Your task to perform on an android device: turn smart compose on in the gmail app Image 0: 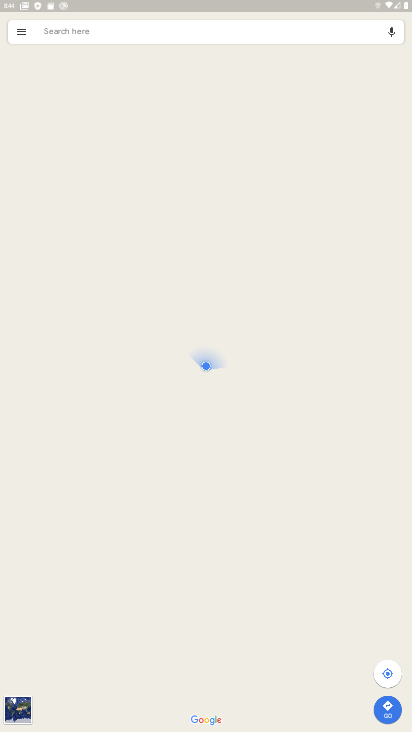
Step 0: press home button
Your task to perform on an android device: turn smart compose on in the gmail app Image 1: 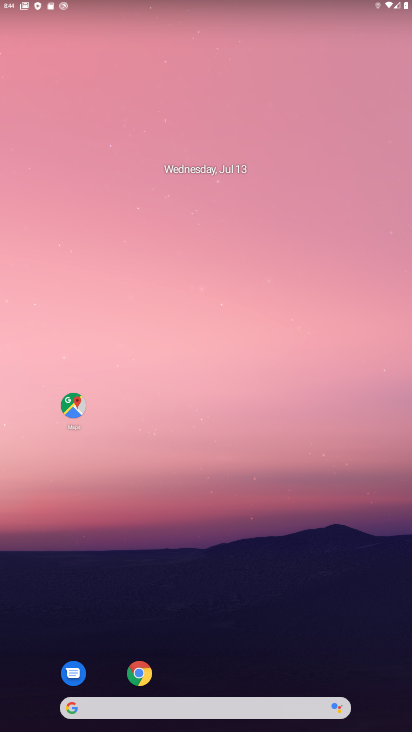
Step 1: drag from (221, 681) to (224, 326)
Your task to perform on an android device: turn smart compose on in the gmail app Image 2: 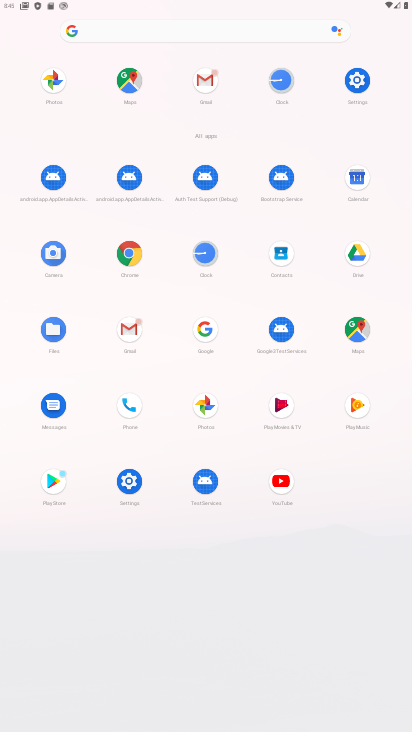
Step 2: click (116, 327)
Your task to perform on an android device: turn smart compose on in the gmail app Image 3: 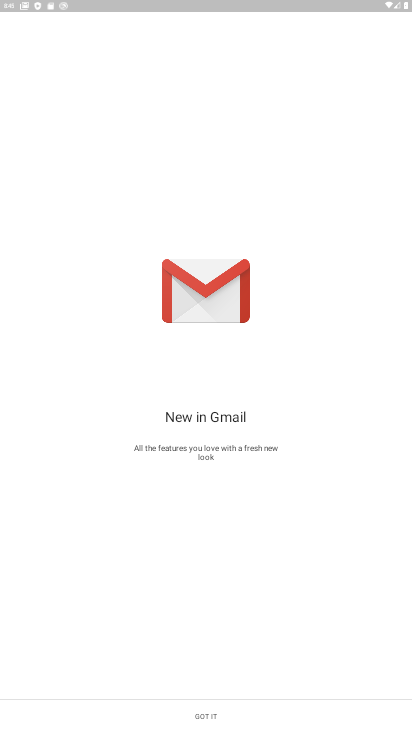
Step 3: click (191, 715)
Your task to perform on an android device: turn smart compose on in the gmail app Image 4: 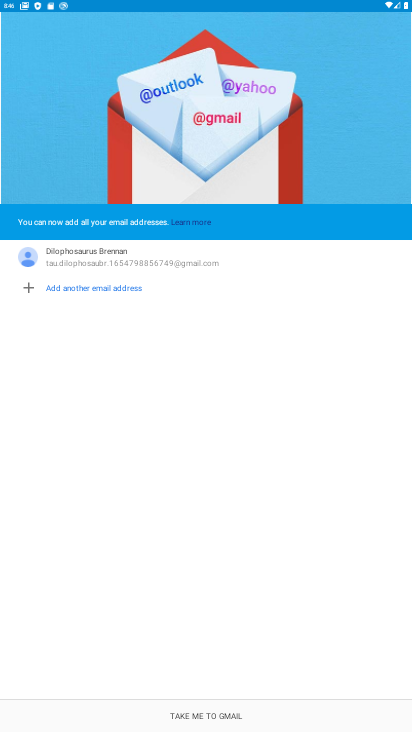
Step 4: click (191, 715)
Your task to perform on an android device: turn smart compose on in the gmail app Image 5: 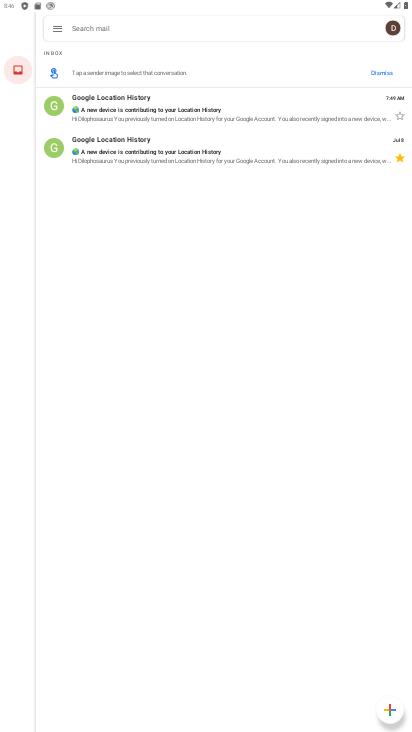
Step 5: click (56, 31)
Your task to perform on an android device: turn smart compose on in the gmail app Image 6: 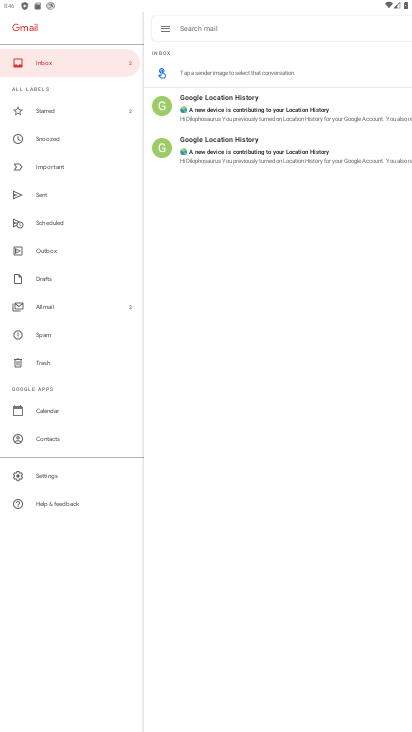
Step 6: click (51, 477)
Your task to perform on an android device: turn smart compose on in the gmail app Image 7: 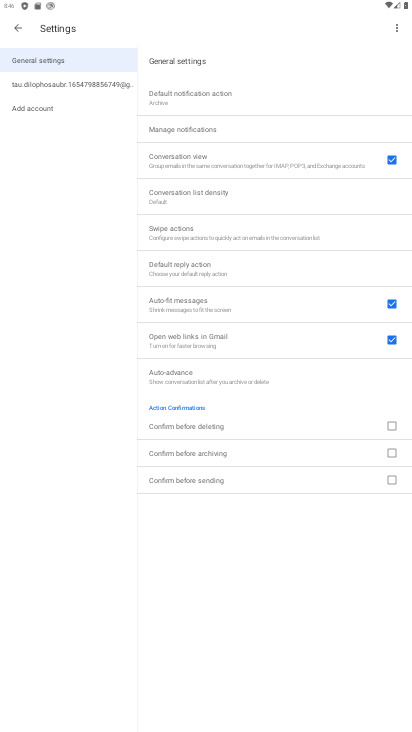
Step 7: click (49, 90)
Your task to perform on an android device: turn smart compose on in the gmail app Image 8: 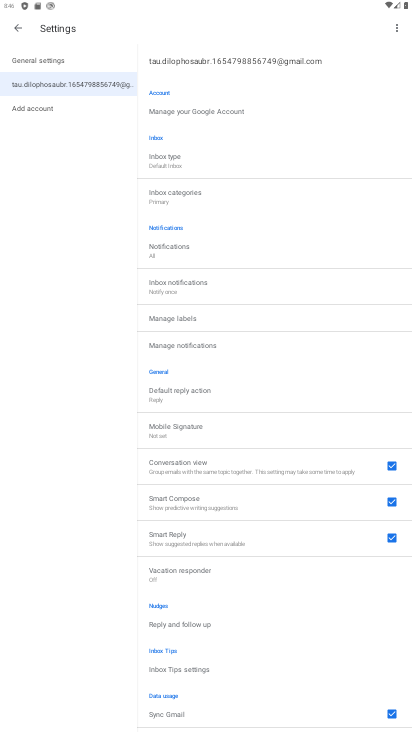
Step 8: task complete